Your task to perform on an android device: Open the calendar app, open the side menu, and click the "Day" option Image 0: 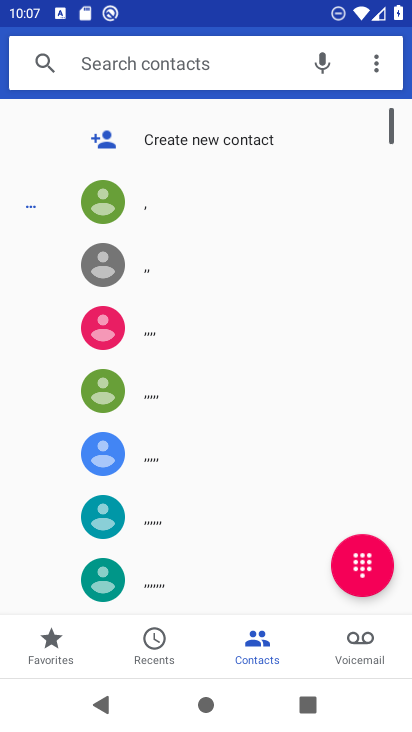
Step 0: press home button
Your task to perform on an android device: Open the calendar app, open the side menu, and click the "Day" option Image 1: 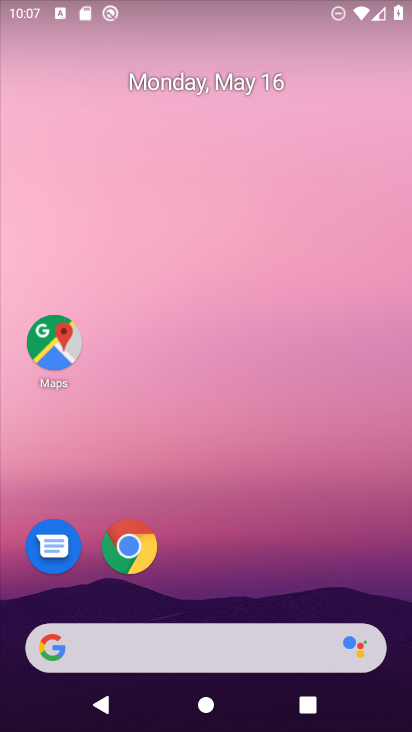
Step 1: click (221, 87)
Your task to perform on an android device: Open the calendar app, open the side menu, and click the "Day" option Image 2: 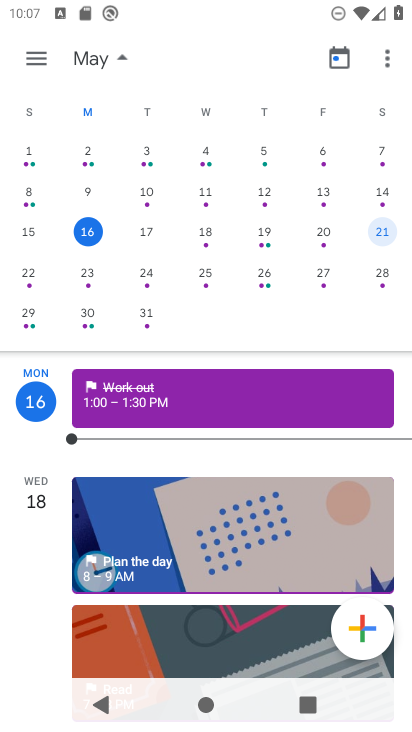
Step 2: click (39, 66)
Your task to perform on an android device: Open the calendar app, open the side menu, and click the "Day" option Image 3: 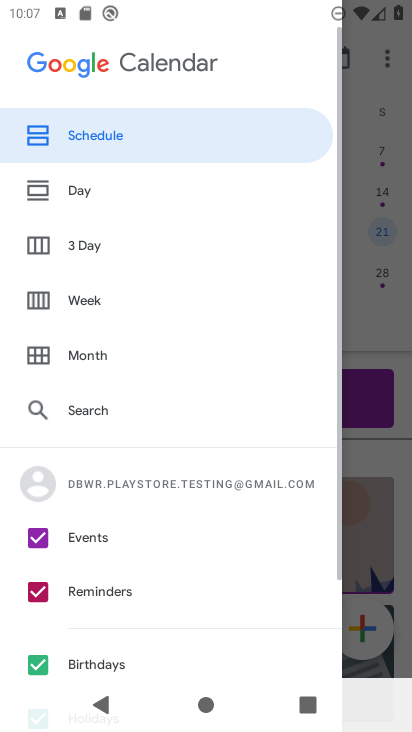
Step 3: click (110, 188)
Your task to perform on an android device: Open the calendar app, open the side menu, and click the "Day" option Image 4: 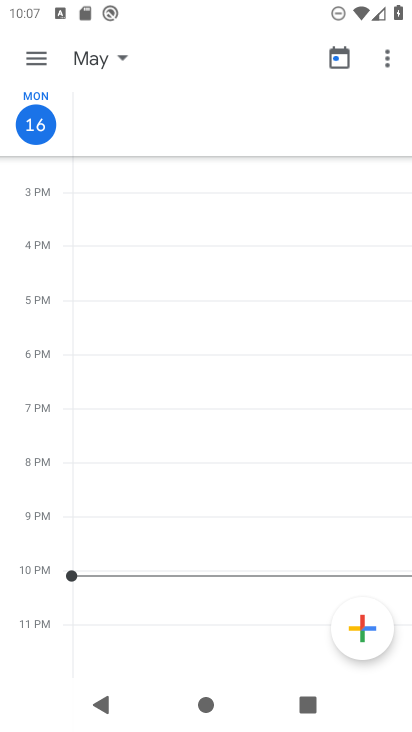
Step 4: task complete